Your task to perform on an android device: set the stopwatch Image 0: 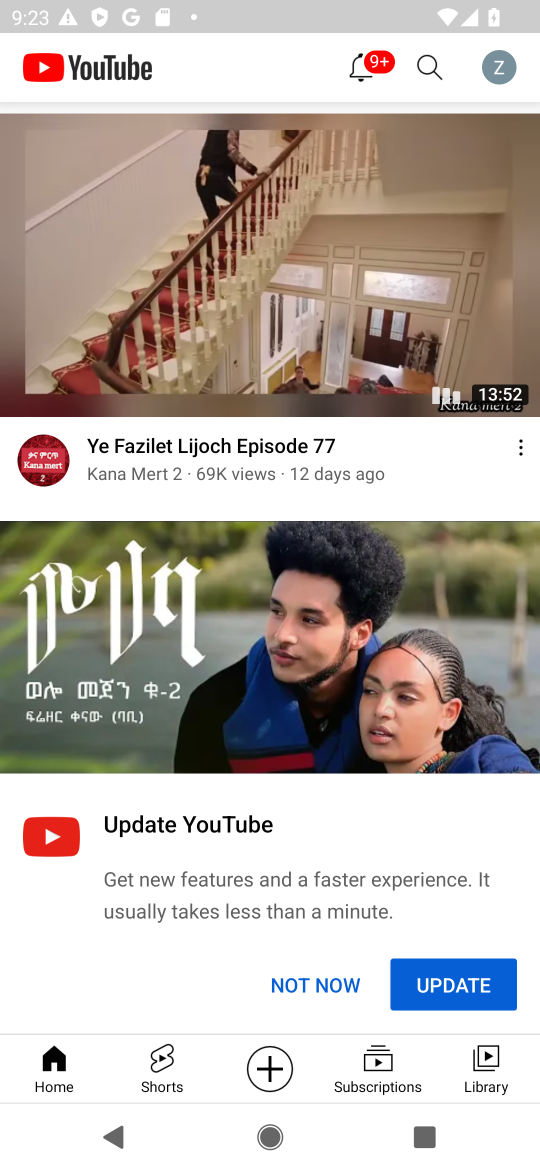
Step 0: press home button
Your task to perform on an android device: set the stopwatch Image 1: 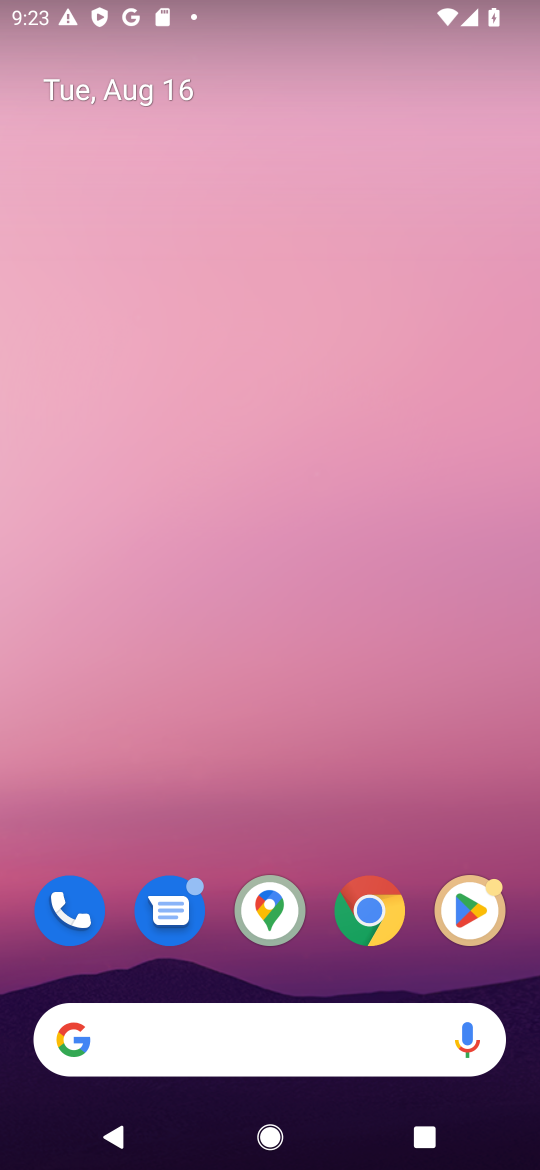
Step 1: drag from (306, 768) to (338, 3)
Your task to perform on an android device: set the stopwatch Image 2: 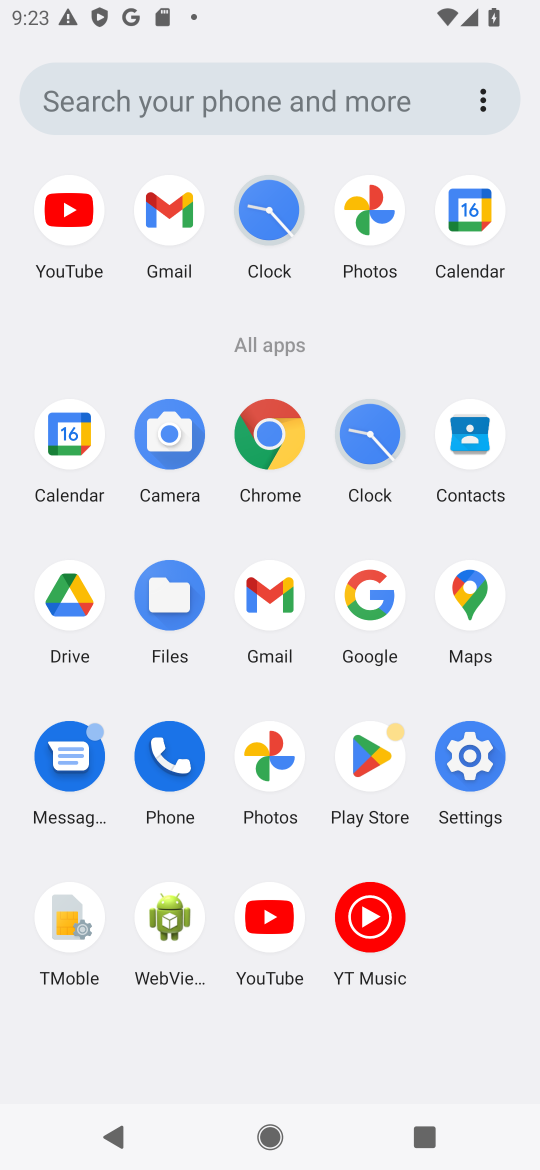
Step 2: click (270, 201)
Your task to perform on an android device: set the stopwatch Image 3: 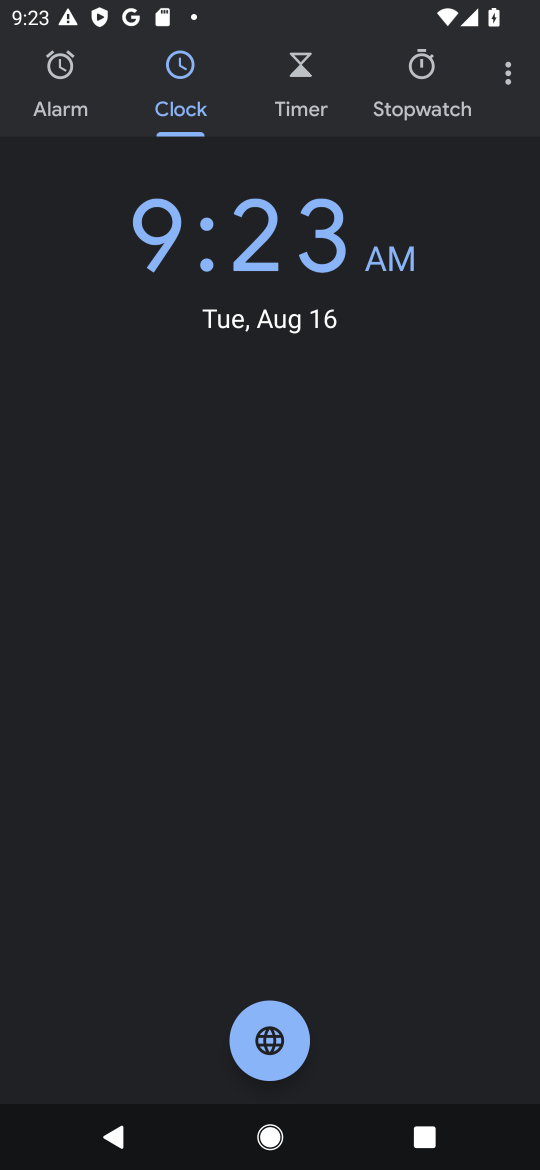
Step 3: click (413, 81)
Your task to perform on an android device: set the stopwatch Image 4: 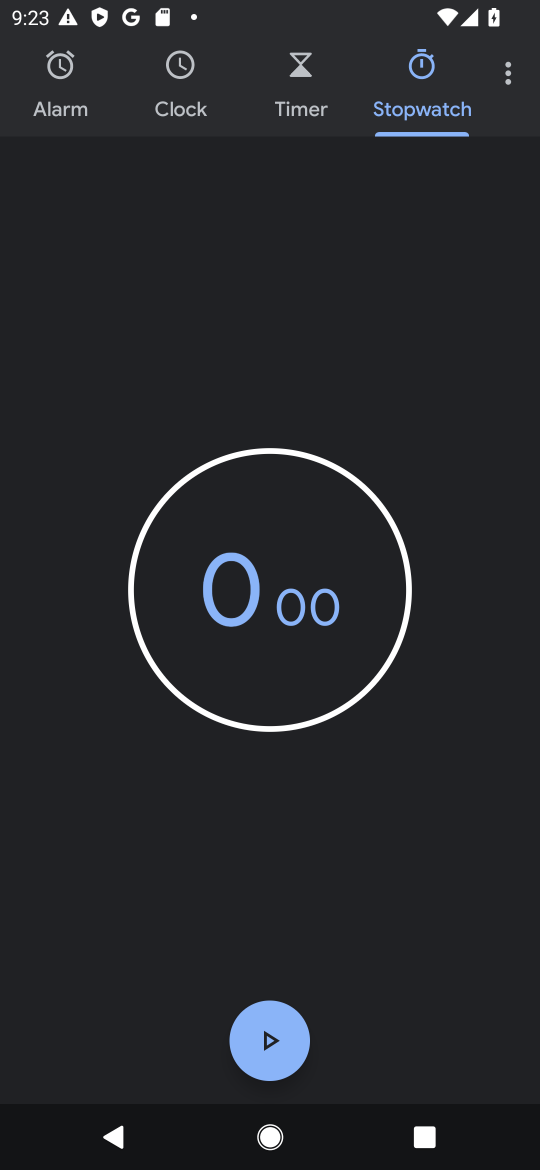
Step 4: task complete